Your task to perform on an android device: move a message to another label in the gmail app Image 0: 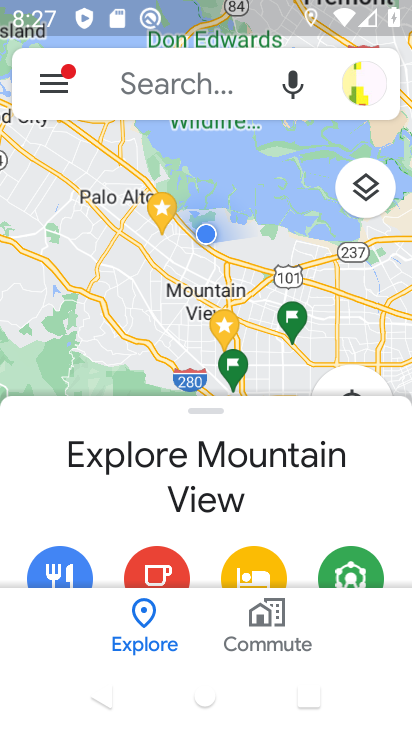
Step 0: click (64, 88)
Your task to perform on an android device: move a message to another label in the gmail app Image 1: 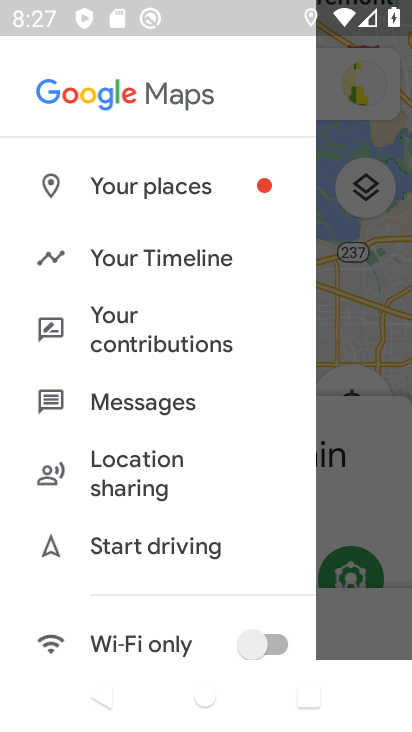
Step 1: press home button
Your task to perform on an android device: move a message to another label in the gmail app Image 2: 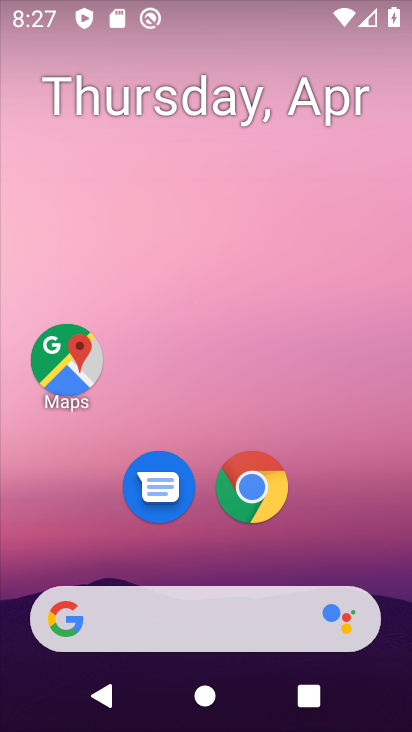
Step 2: drag from (182, 563) to (190, 39)
Your task to perform on an android device: move a message to another label in the gmail app Image 3: 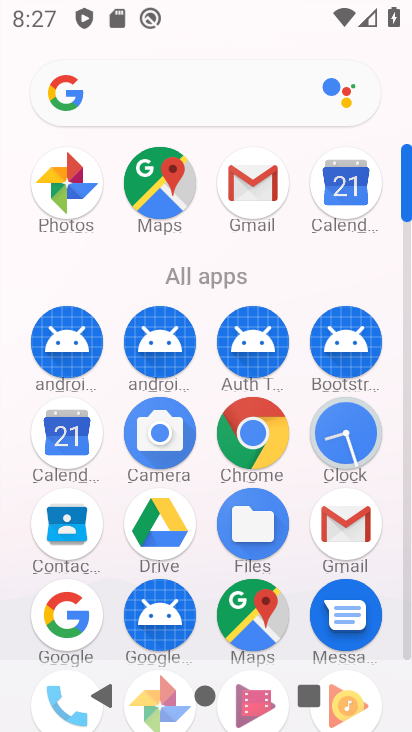
Step 3: click (331, 522)
Your task to perform on an android device: move a message to another label in the gmail app Image 4: 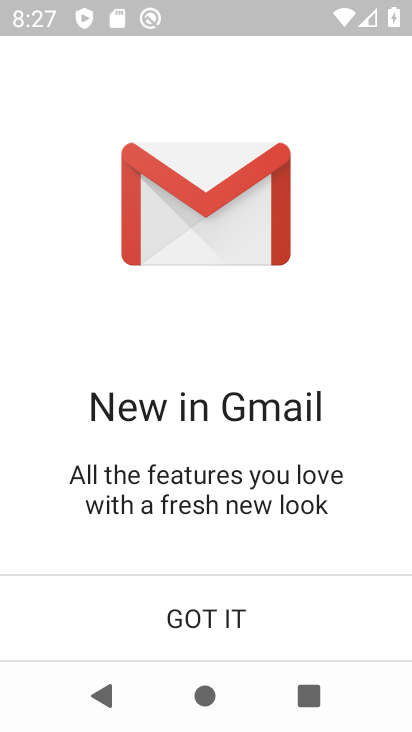
Step 4: click (252, 614)
Your task to perform on an android device: move a message to another label in the gmail app Image 5: 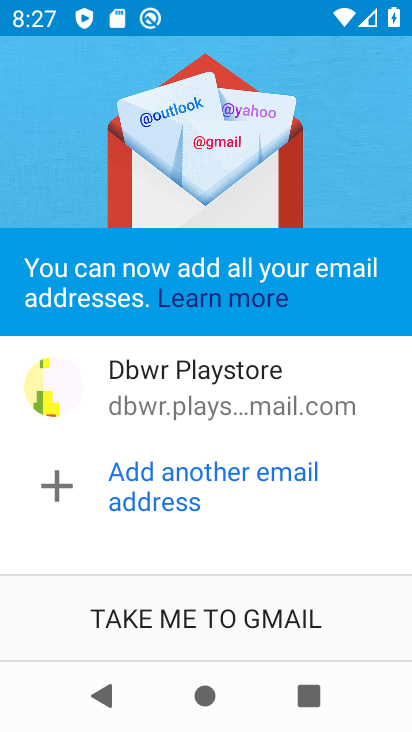
Step 5: click (236, 621)
Your task to perform on an android device: move a message to another label in the gmail app Image 6: 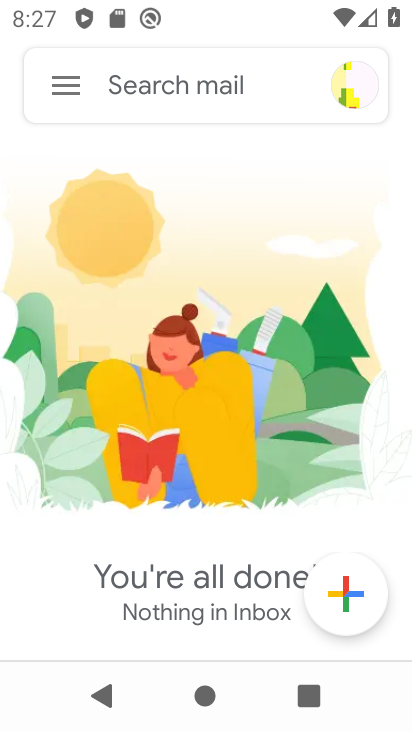
Step 6: click (59, 95)
Your task to perform on an android device: move a message to another label in the gmail app Image 7: 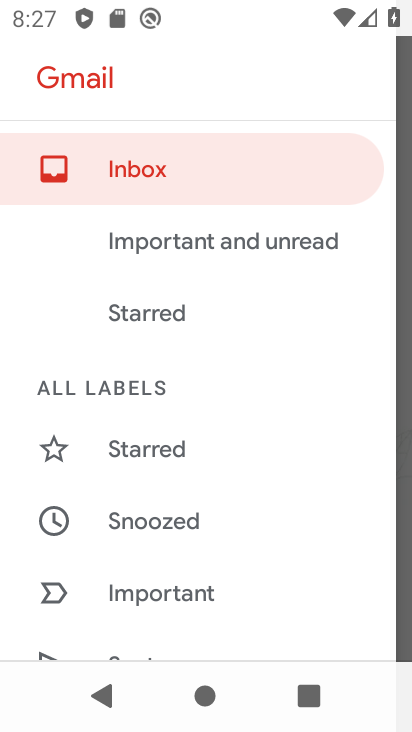
Step 7: drag from (182, 612) to (217, 213)
Your task to perform on an android device: move a message to another label in the gmail app Image 8: 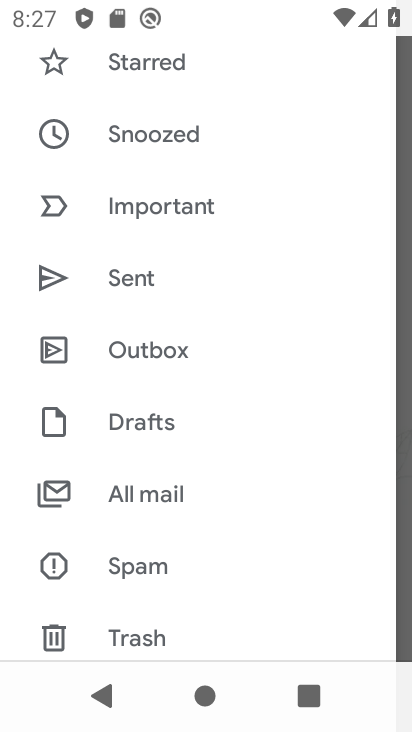
Step 8: click (156, 508)
Your task to perform on an android device: move a message to another label in the gmail app Image 9: 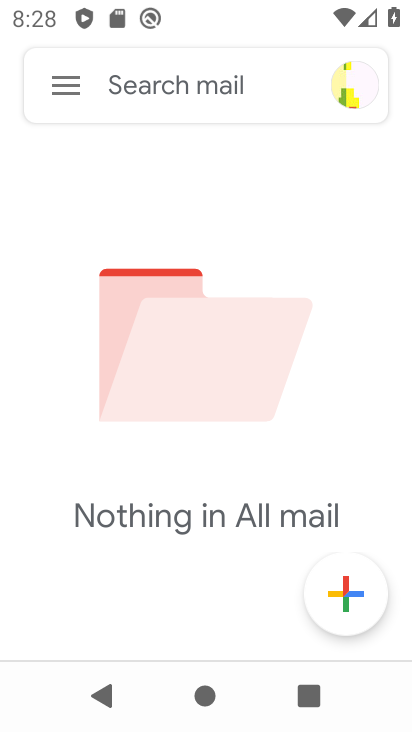
Step 9: task complete